Your task to perform on an android device: turn off data saver in the chrome app Image 0: 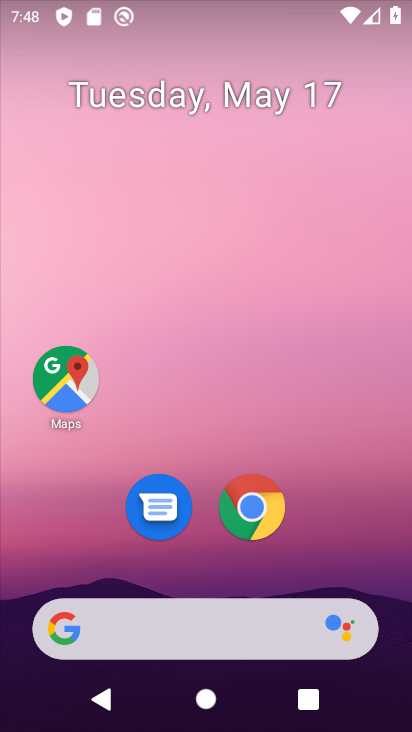
Step 0: click (262, 504)
Your task to perform on an android device: turn off data saver in the chrome app Image 1: 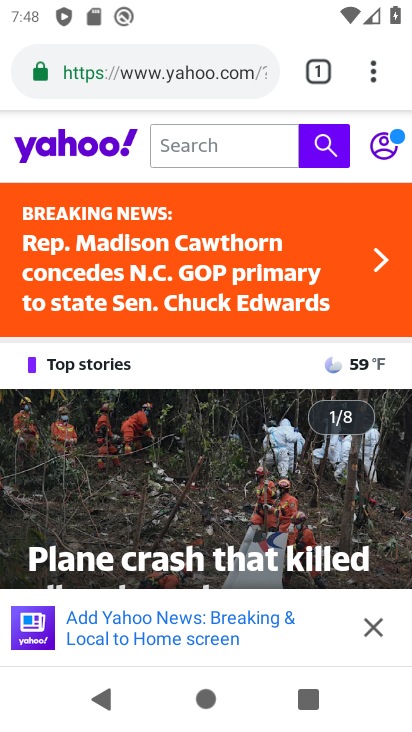
Step 1: click (373, 65)
Your task to perform on an android device: turn off data saver in the chrome app Image 2: 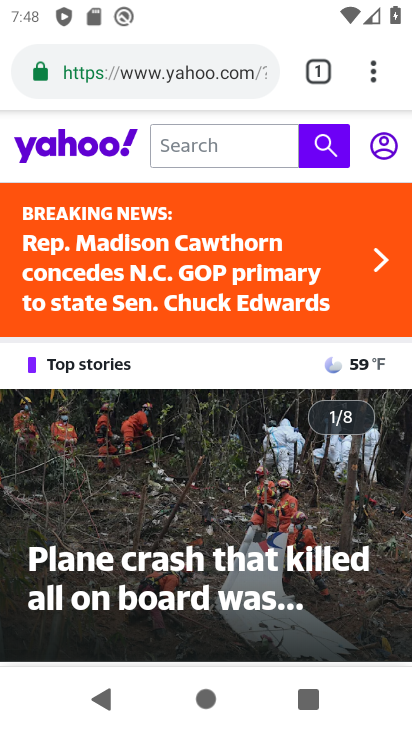
Step 2: click (373, 65)
Your task to perform on an android device: turn off data saver in the chrome app Image 3: 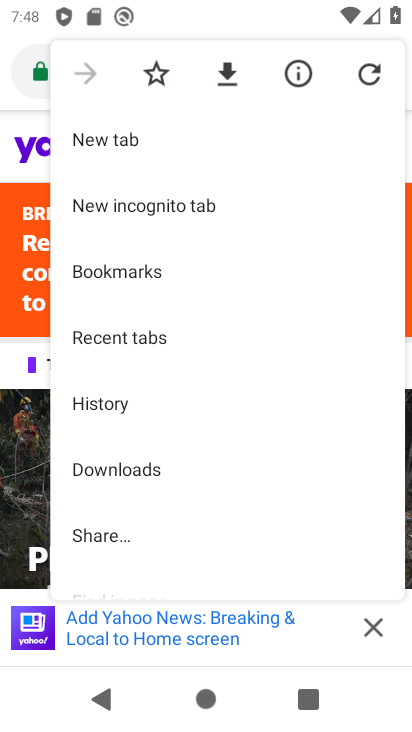
Step 3: drag from (279, 506) to (270, 52)
Your task to perform on an android device: turn off data saver in the chrome app Image 4: 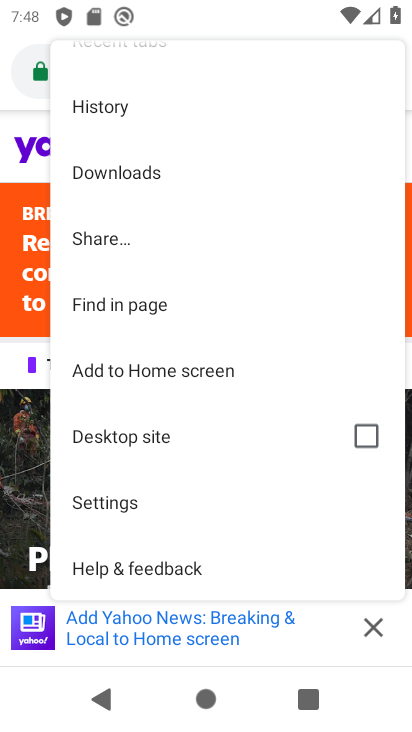
Step 4: click (101, 506)
Your task to perform on an android device: turn off data saver in the chrome app Image 5: 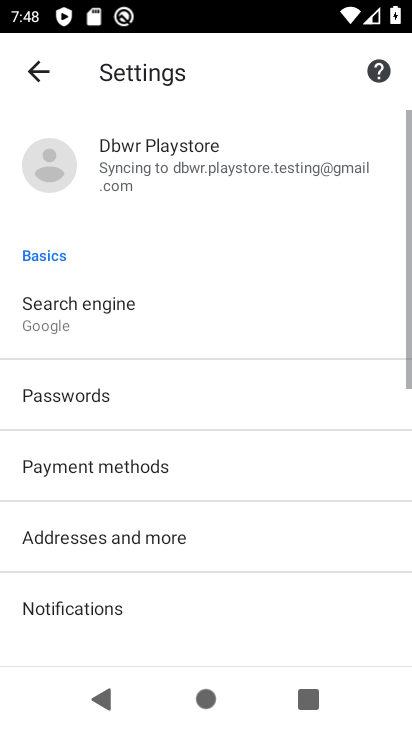
Step 5: drag from (219, 549) to (181, 65)
Your task to perform on an android device: turn off data saver in the chrome app Image 6: 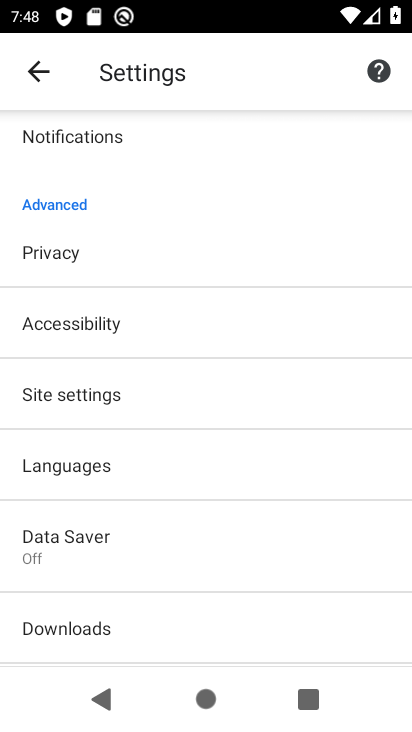
Step 6: click (62, 538)
Your task to perform on an android device: turn off data saver in the chrome app Image 7: 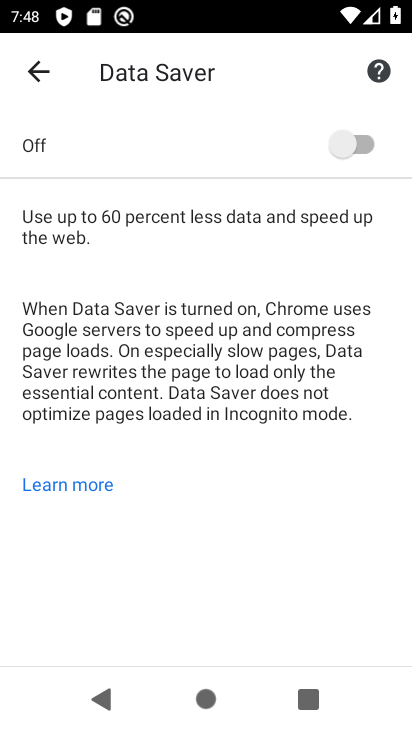
Step 7: task complete